Your task to perform on an android device: Go to network settings Image 0: 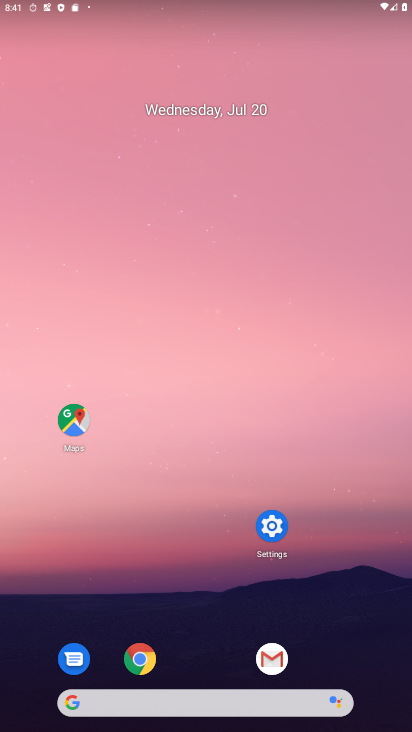
Step 0: press home button
Your task to perform on an android device: Go to network settings Image 1: 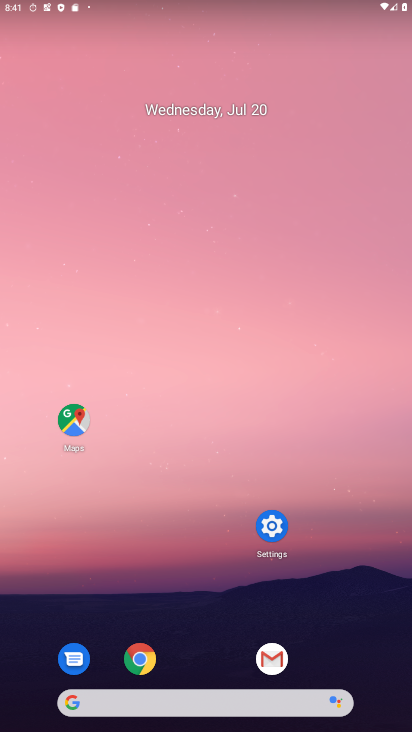
Step 1: click (274, 536)
Your task to perform on an android device: Go to network settings Image 2: 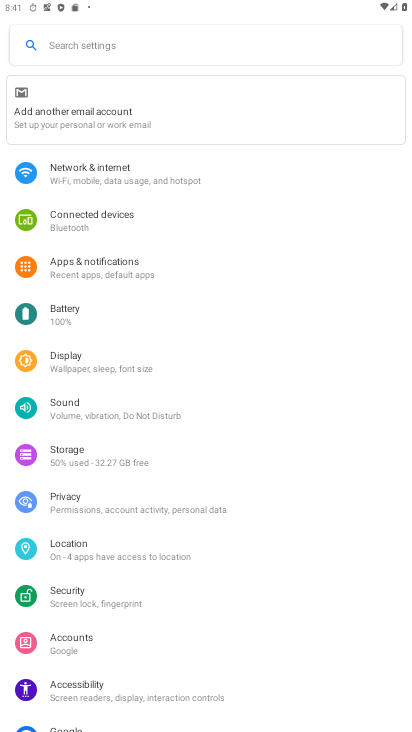
Step 2: click (118, 180)
Your task to perform on an android device: Go to network settings Image 3: 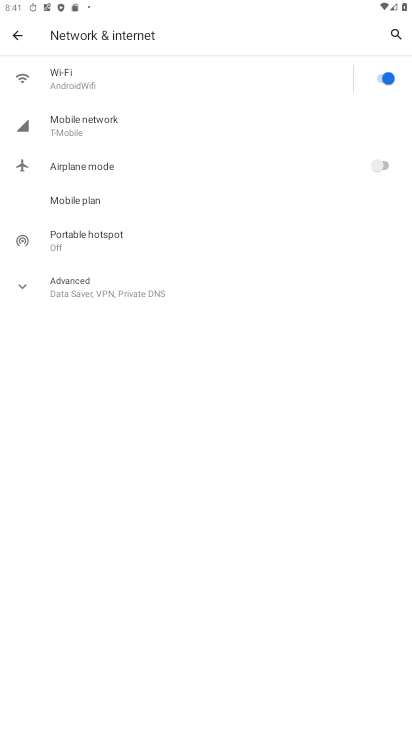
Step 3: task complete